Your task to perform on an android device: Open Chrome and go to settings Image 0: 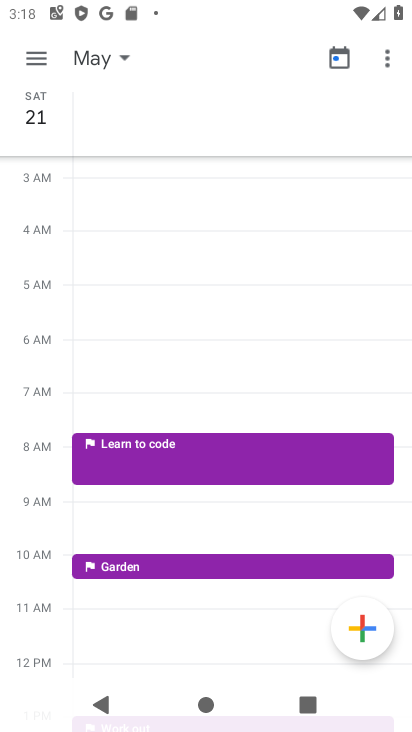
Step 0: press home button
Your task to perform on an android device: Open Chrome and go to settings Image 1: 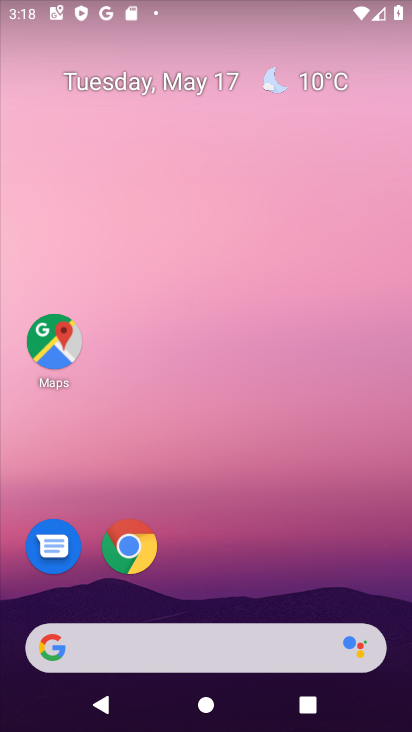
Step 1: click (139, 536)
Your task to perform on an android device: Open Chrome and go to settings Image 2: 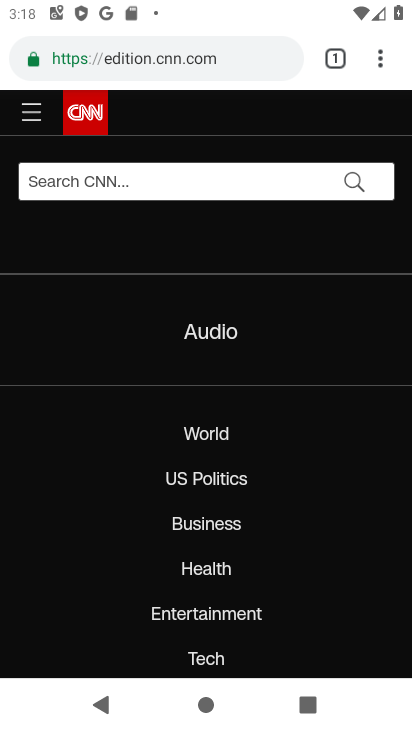
Step 2: click (391, 53)
Your task to perform on an android device: Open Chrome and go to settings Image 3: 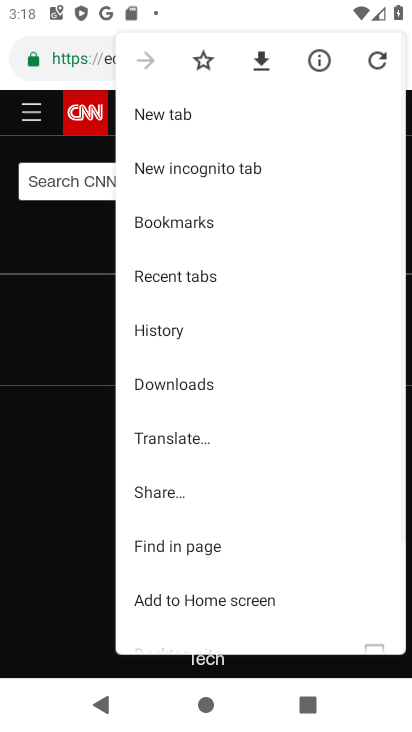
Step 3: drag from (209, 541) to (226, 314)
Your task to perform on an android device: Open Chrome and go to settings Image 4: 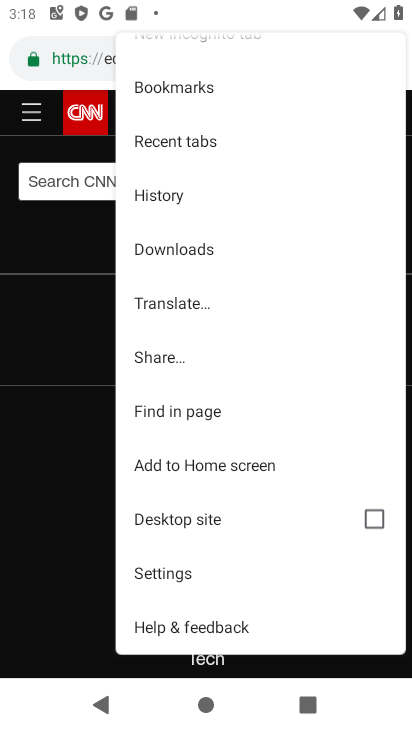
Step 4: click (171, 580)
Your task to perform on an android device: Open Chrome and go to settings Image 5: 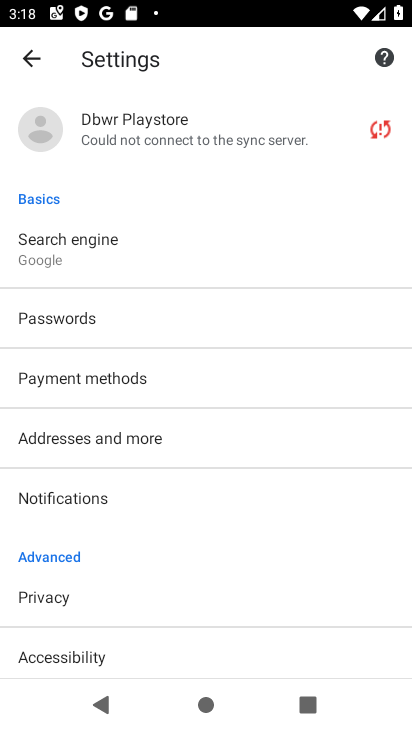
Step 5: task complete